Your task to perform on an android device: delete the emails in spam in the gmail app Image 0: 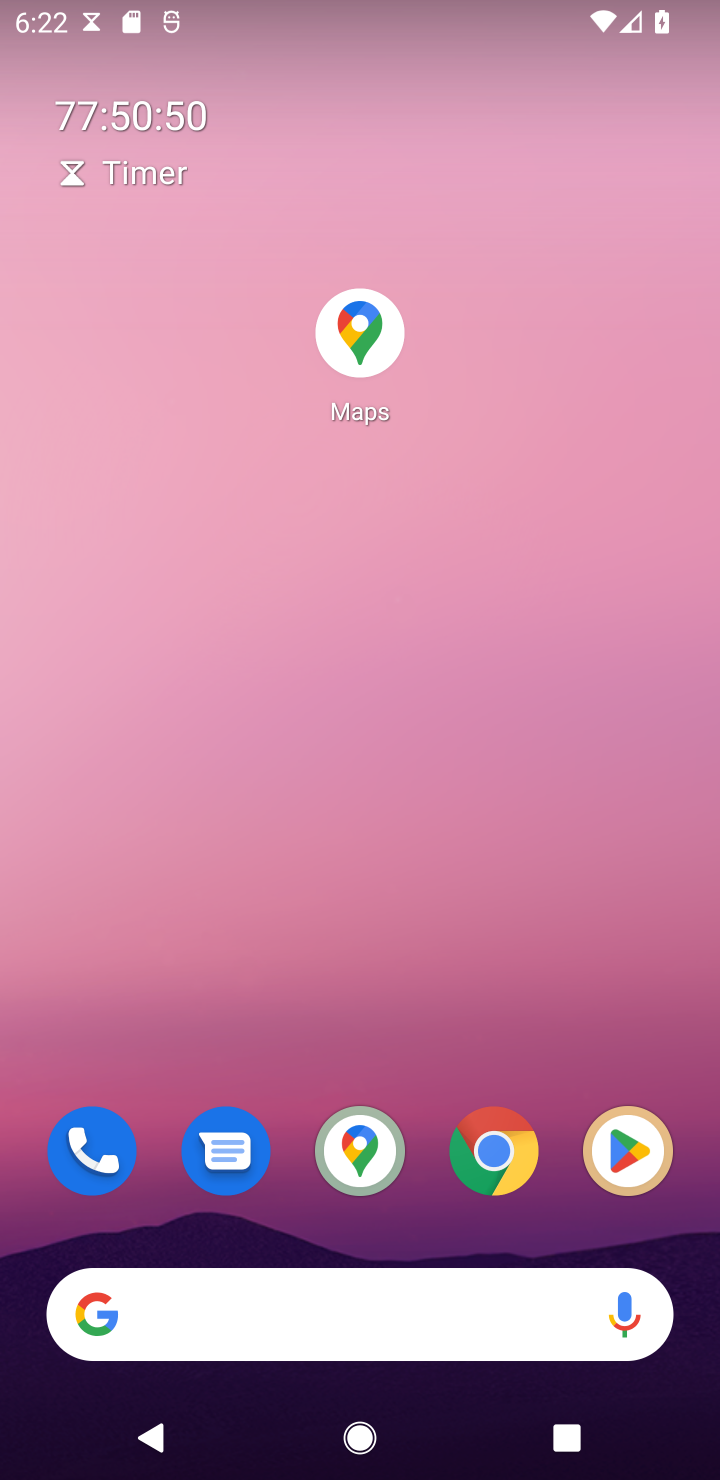
Step 0: drag from (244, 1092) to (215, 266)
Your task to perform on an android device: delete the emails in spam in the gmail app Image 1: 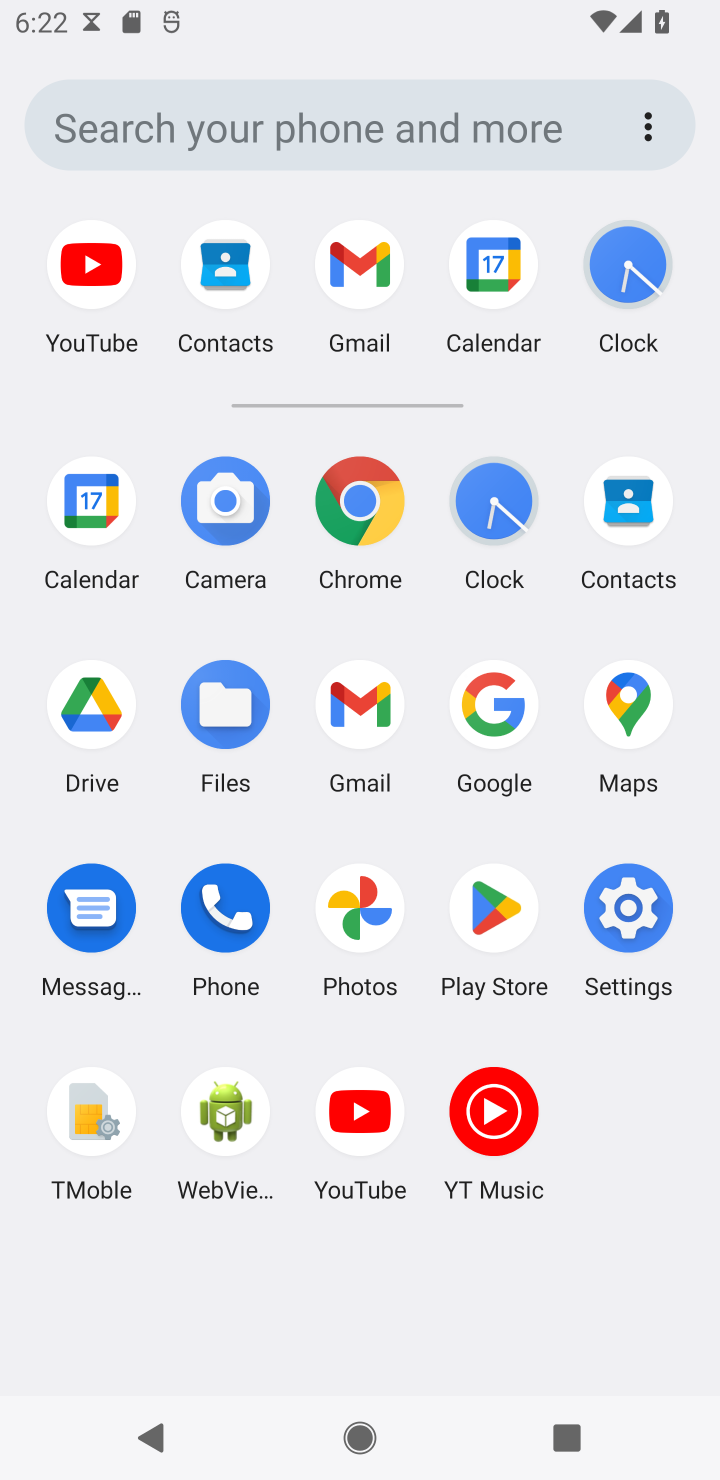
Step 1: click (368, 692)
Your task to perform on an android device: delete the emails in spam in the gmail app Image 2: 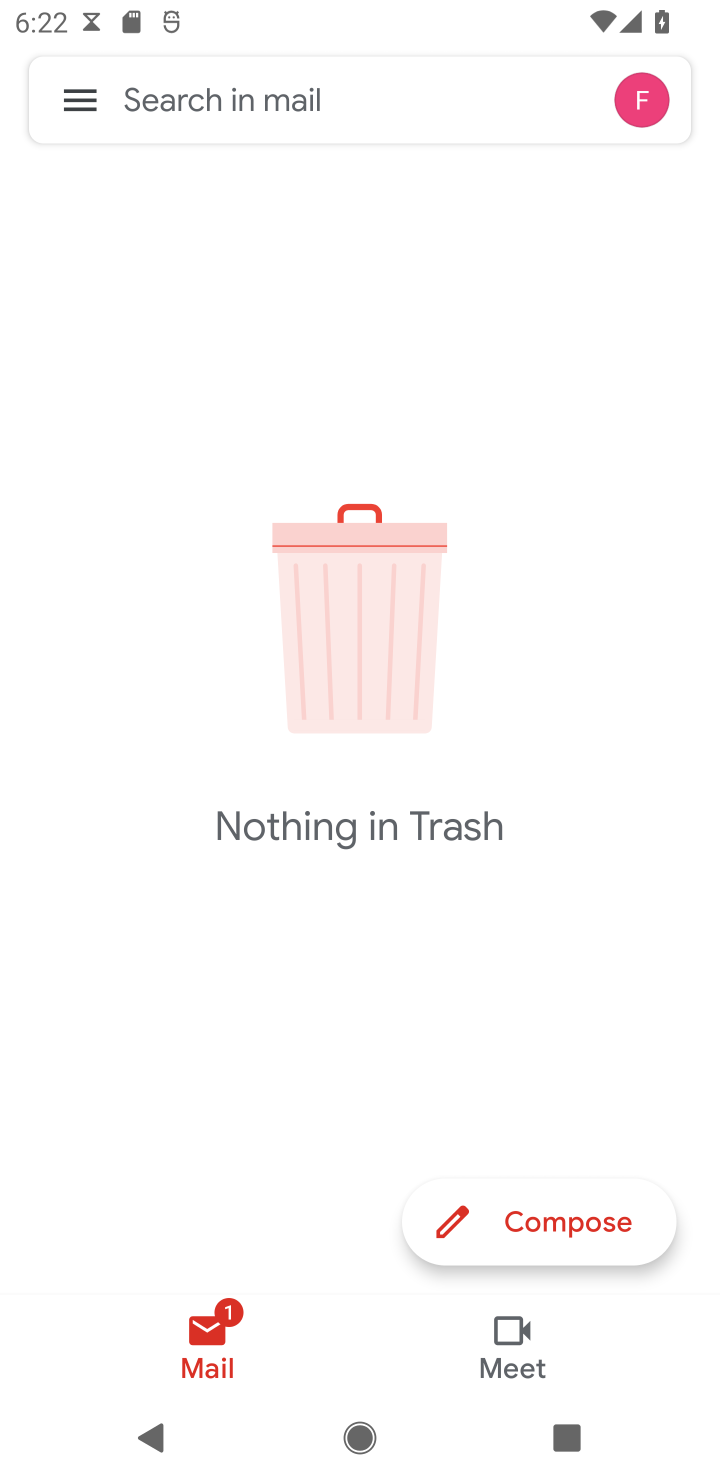
Step 2: click (81, 104)
Your task to perform on an android device: delete the emails in spam in the gmail app Image 3: 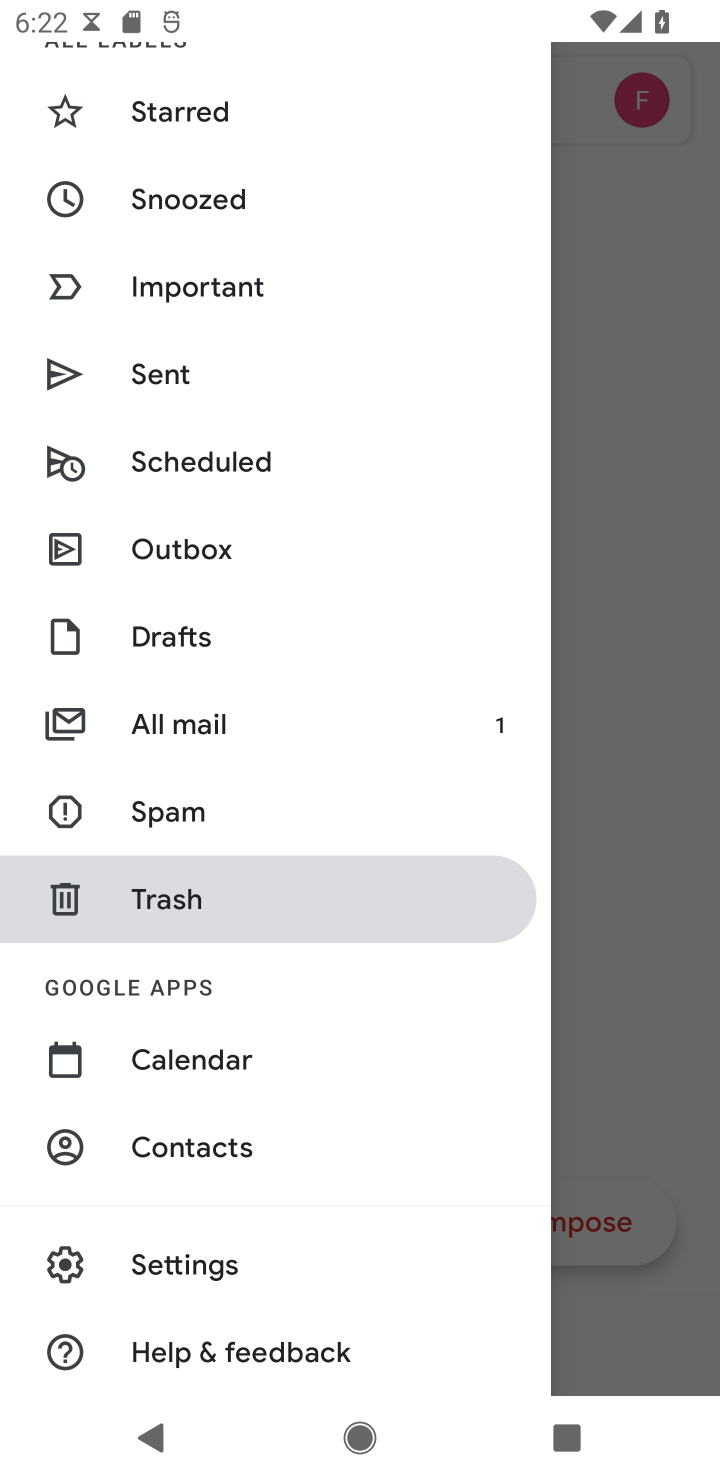
Step 3: click (168, 816)
Your task to perform on an android device: delete the emails in spam in the gmail app Image 4: 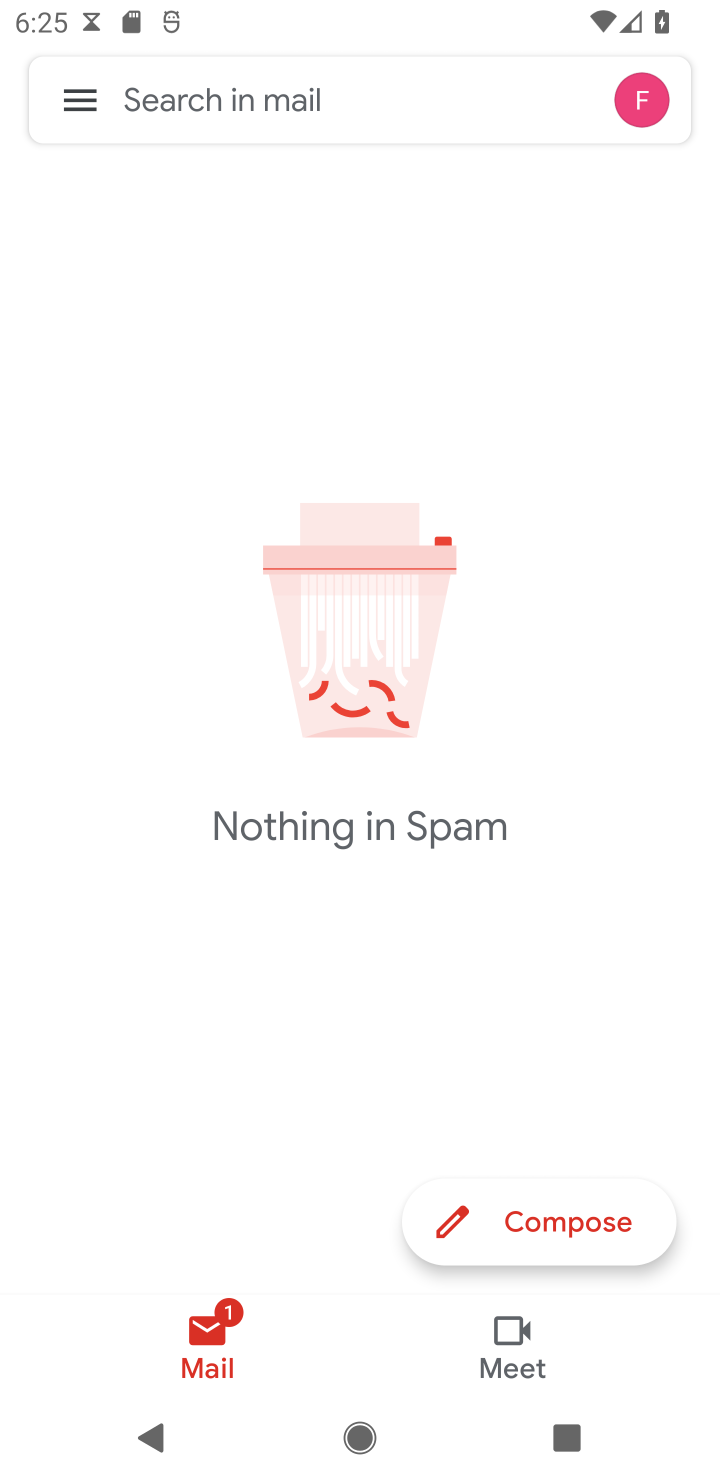
Step 4: task complete